Your task to perform on an android device: Clear the cart on ebay. Add logitech g502 to the cart on ebay Image 0: 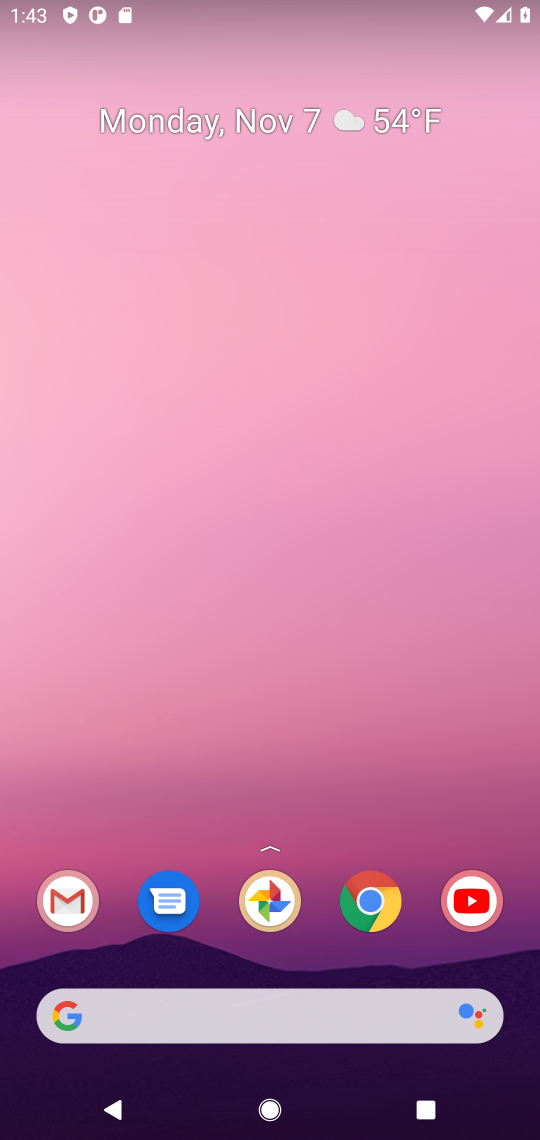
Step 0: click (365, 891)
Your task to perform on an android device: Clear the cart on ebay. Add logitech g502 to the cart on ebay Image 1: 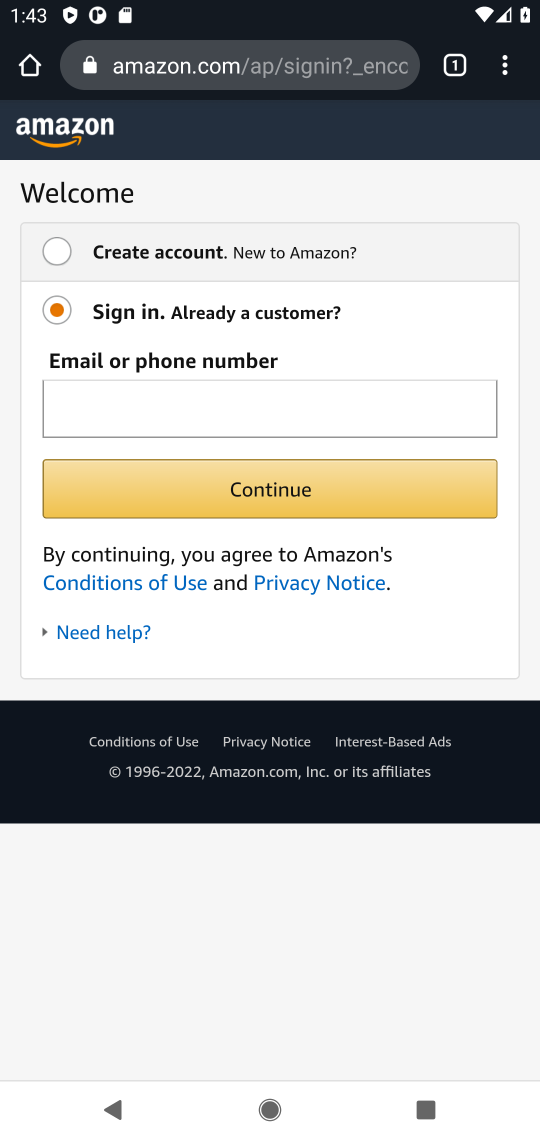
Step 1: click (179, 71)
Your task to perform on an android device: Clear the cart on ebay. Add logitech g502 to the cart on ebay Image 2: 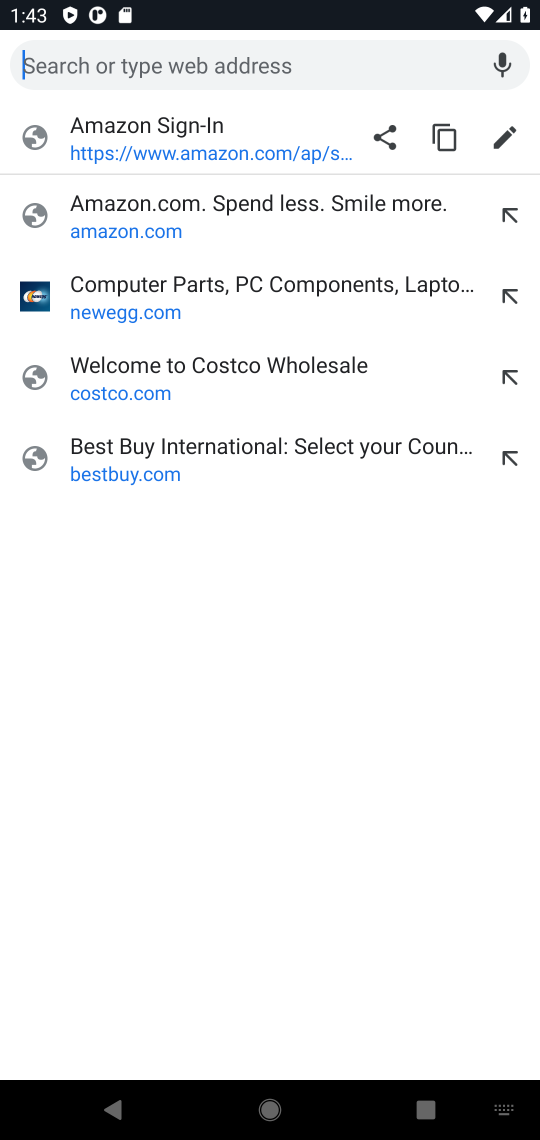
Step 2: type "ebay.com"
Your task to perform on an android device: Clear the cart on ebay. Add logitech g502 to the cart on ebay Image 3: 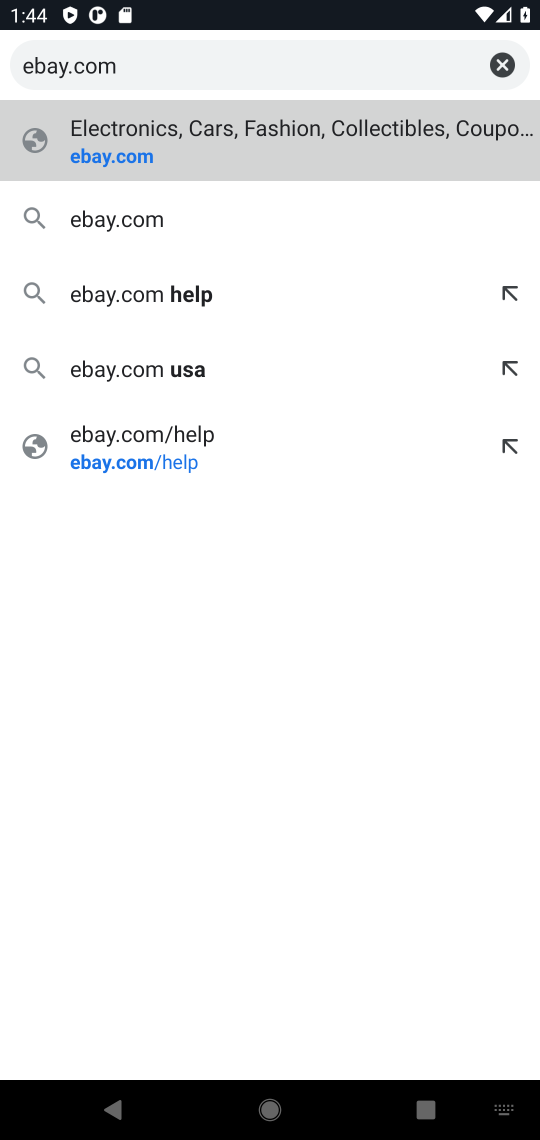
Step 3: click (156, 159)
Your task to perform on an android device: Clear the cart on ebay. Add logitech g502 to the cart on ebay Image 4: 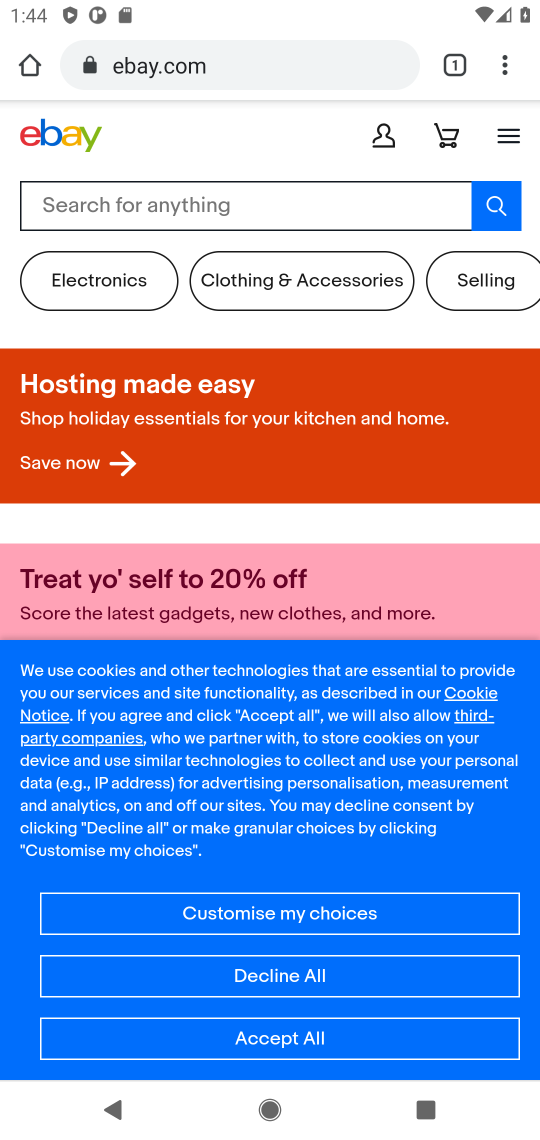
Step 4: click (452, 145)
Your task to perform on an android device: Clear the cart on ebay. Add logitech g502 to the cart on ebay Image 5: 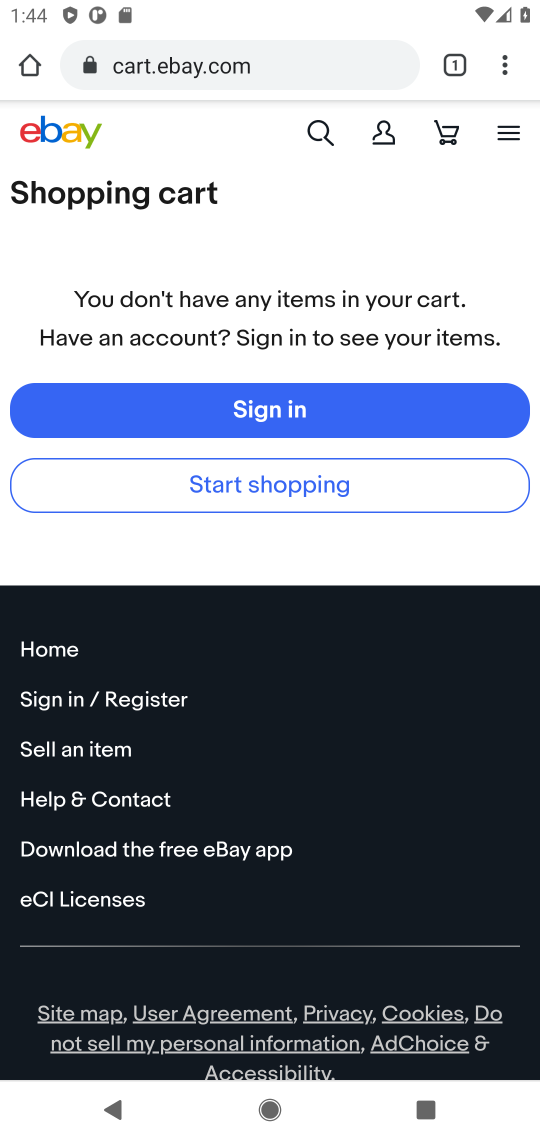
Step 5: click (319, 131)
Your task to perform on an android device: Clear the cart on ebay. Add logitech g502 to the cart on ebay Image 6: 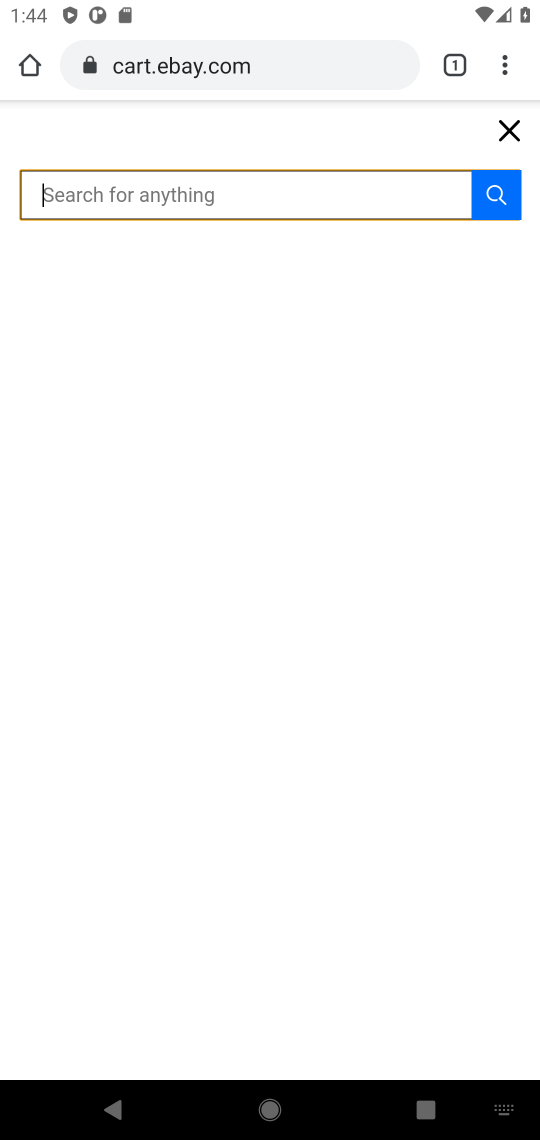
Step 6: type "logitech g502"
Your task to perform on an android device: Clear the cart on ebay. Add logitech g502 to the cart on ebay Image 7: 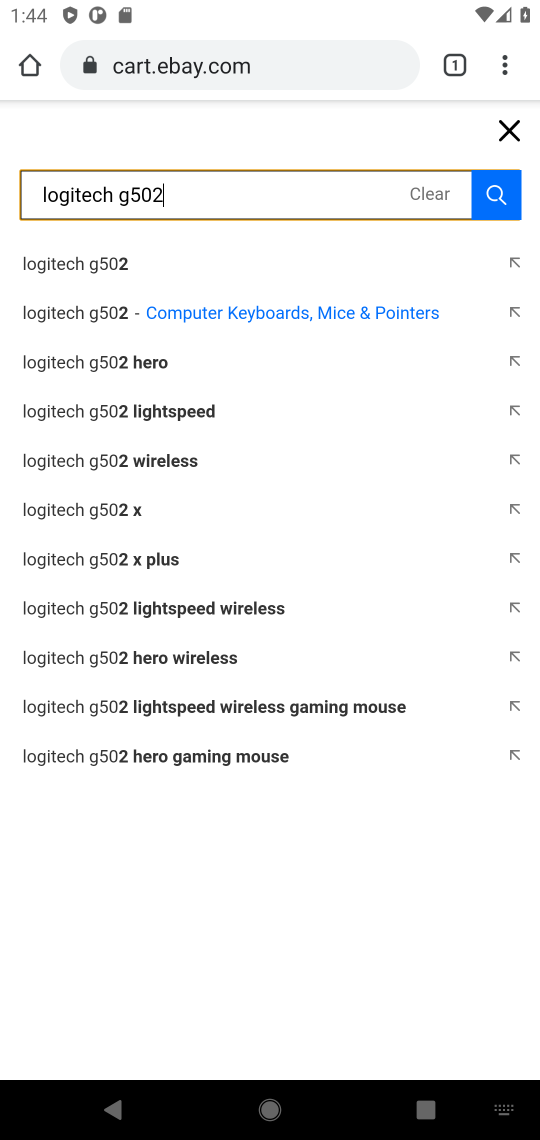
Step 7: click (80, 268)
Your task to perform on an android device: Clear the cart on ebay. Add logitech g502 to the cart on ebay Image 8: 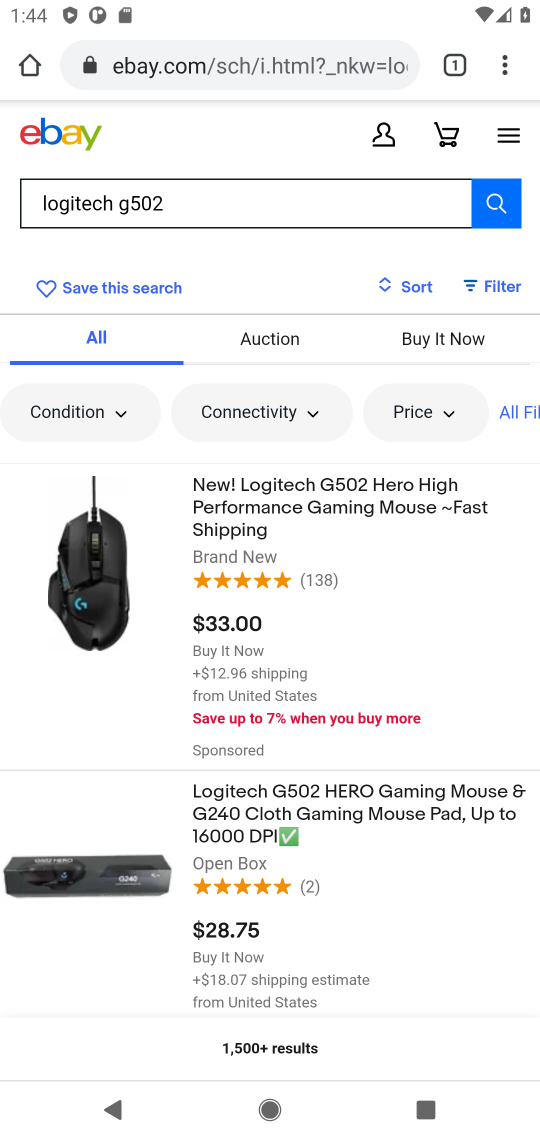
Step 8: click (224, 564)
Your task to perform on an android device: Clear the cart on ebay. Add logitech g502 to the cart on ebay Image 9: 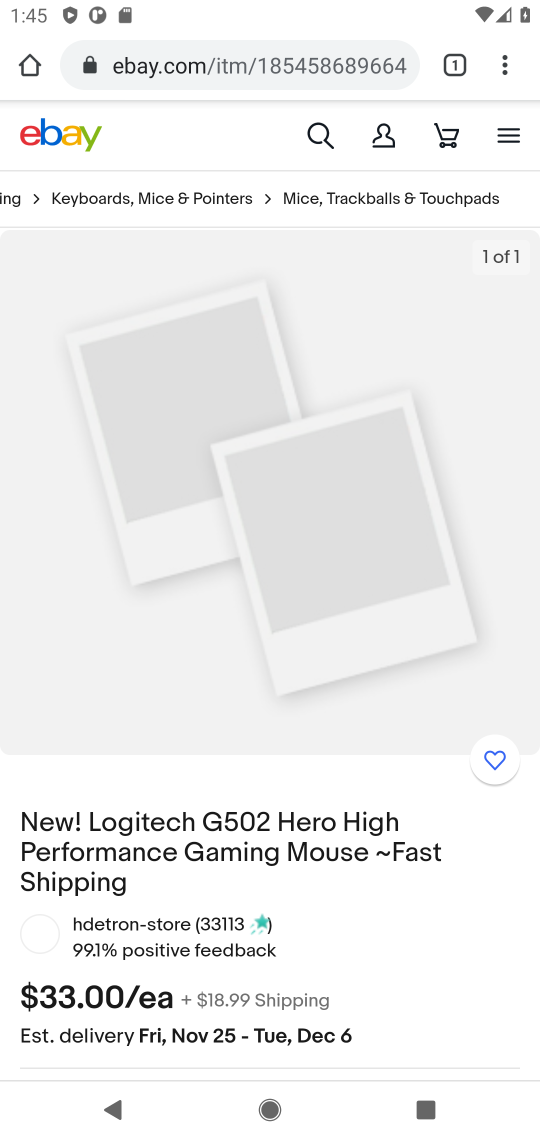
Step 9: drag from (289, 862) to (276, 449)
Your task to perform on an android device: Clear the cart on ebay. Add logitech g502 to the cart on ebay Image 10: 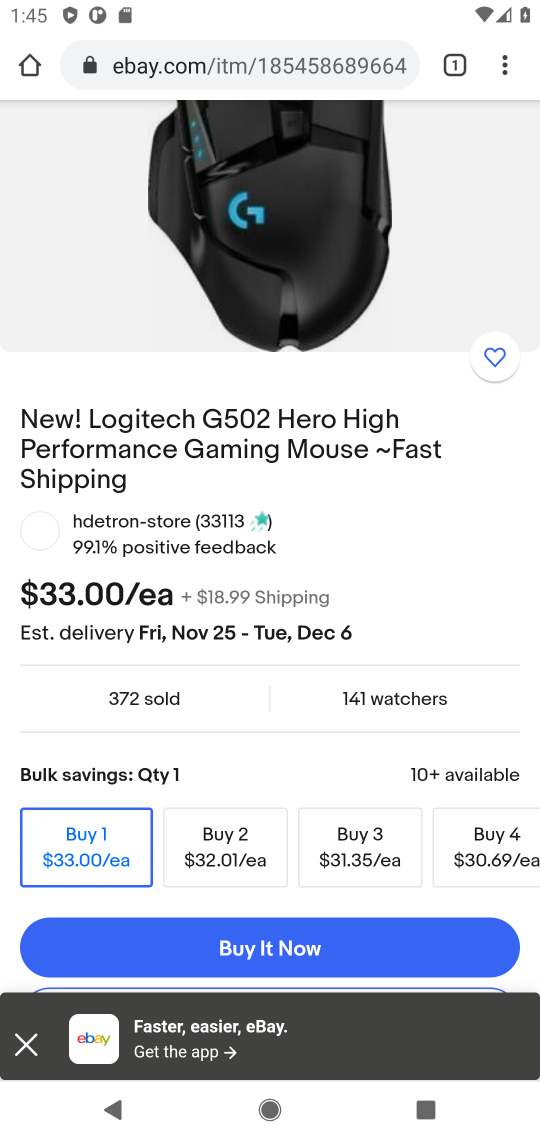
Step 10: drag from (223, 832) to (232, 522)
Your task to perform on an android device: Clear the cart on ebay. Add logitech g502 to the cart on ebay Image 11: 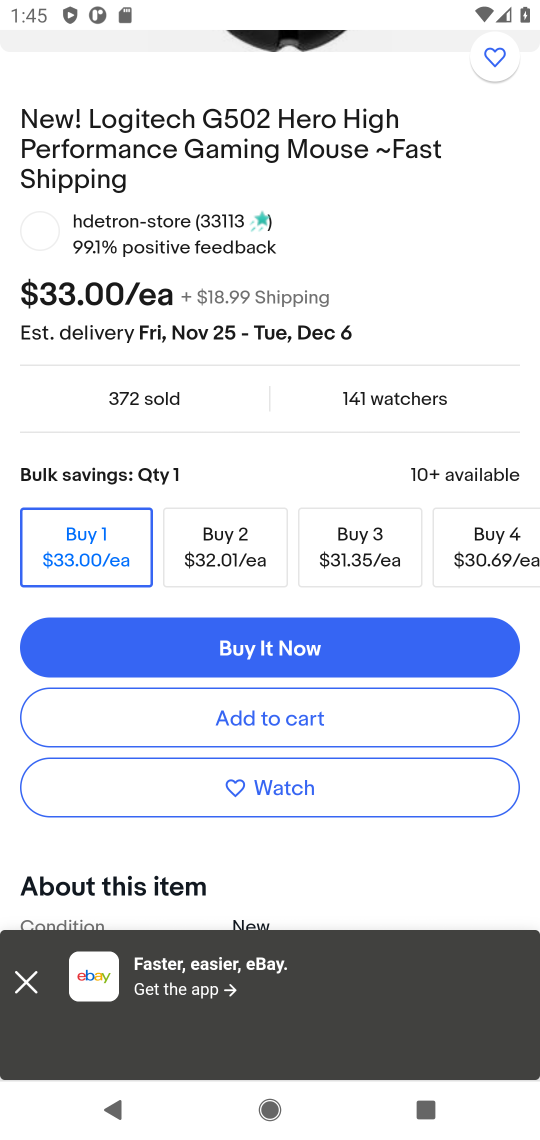
Step 11: click (243, 725)
Your task to perform on an android device: Clear the cart on ebay. Add logitech g502 to the cart on ebay Image 12: 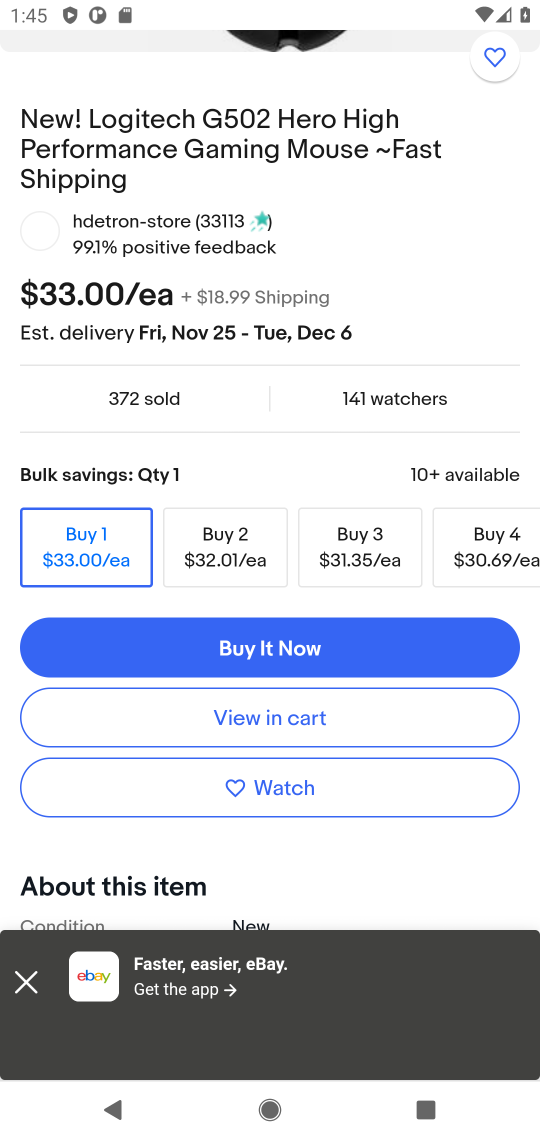
Step 12: task complete